Your task to perform on an android device: Open calendar and show me the fourth week of next month Image 0: 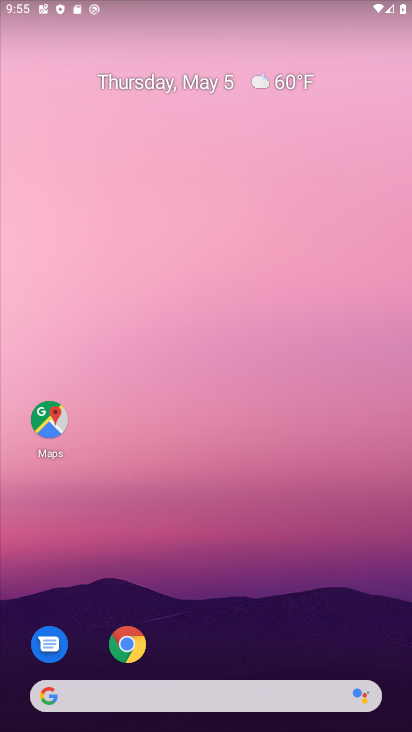
Step 0: drag from (211, 603) to (226, 131)
Your task to perform on an android device: Open calendar and show me the fourth week of next month Image 1: 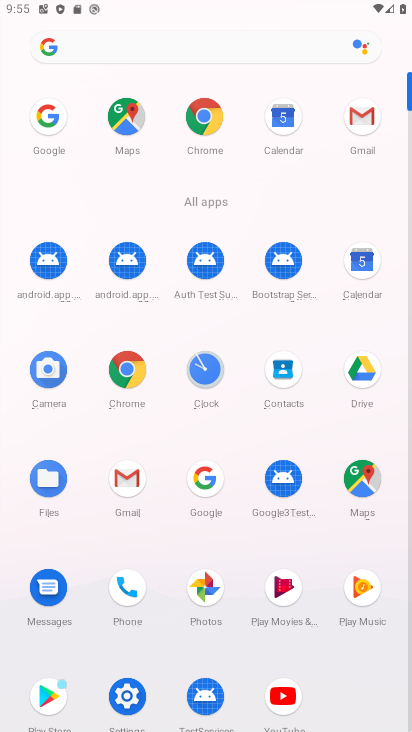
Step 1: click (276, 140)
Your task to perform on an android device: Open calendar and show me the fourth week of next month Image 2: 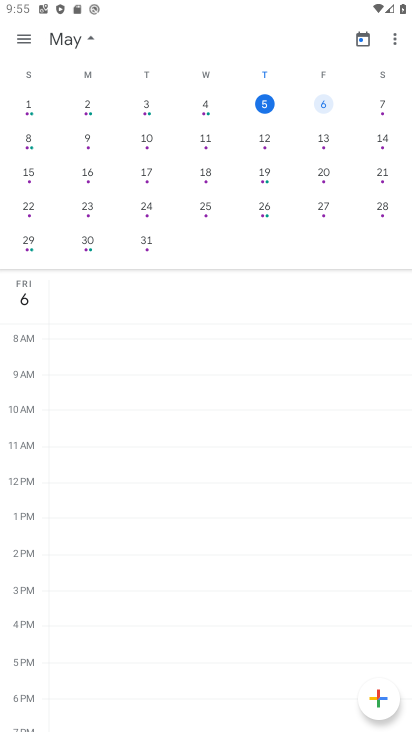
Step 2: click (26, 36)
Your task to perform on an android device: Open calendar and show me the fourth week of next month Image 3: 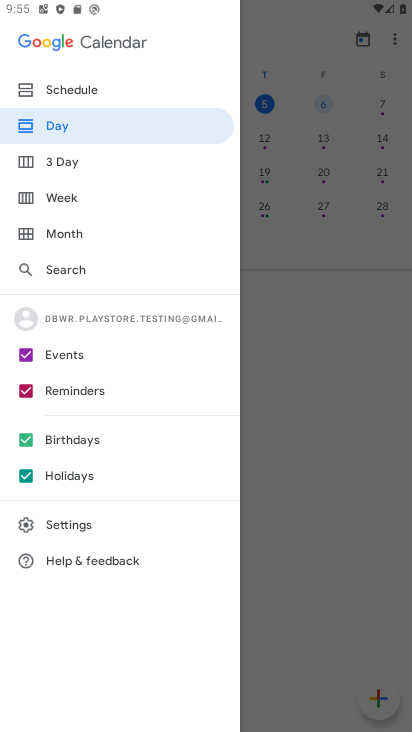
Step 3: click (308, 410)
Your task to perform on an android device: Open calendar and show me the fourth week of next month Image 4: 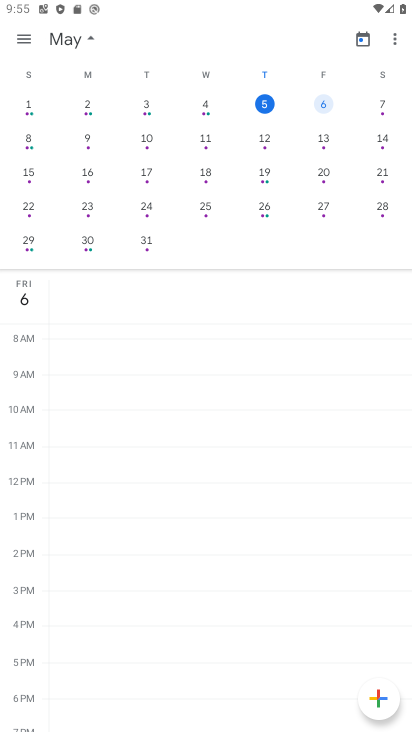
Step 4: drag from (278, 193) to (1, 200)
Your task to perform on an android device: Open calendar and show me the fourth week of next month Image 5: 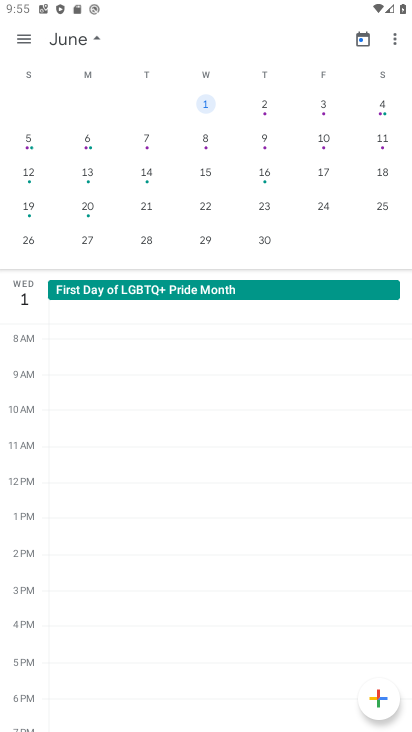
Step 5: click (25, 212)
Your task to perform on an android device: Open calendar and show me the fourth week of next month Image 6: 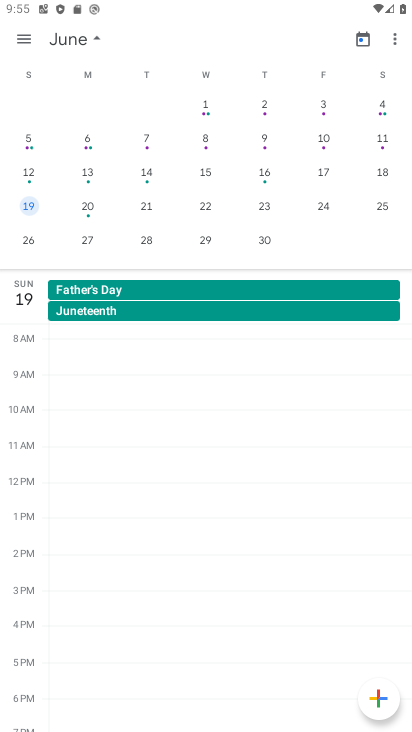
Step 6: click (89, 208)
Your task to perform on an android device: Open calendar and show me the fourth week of next month Image 7: 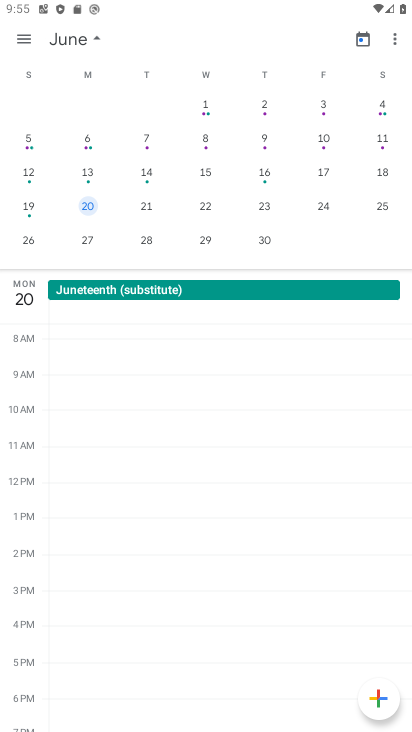
Step 7: click (152, 210)
Your task to perform on an android device: Open calendar and show me the fourth week of next month Image 8: 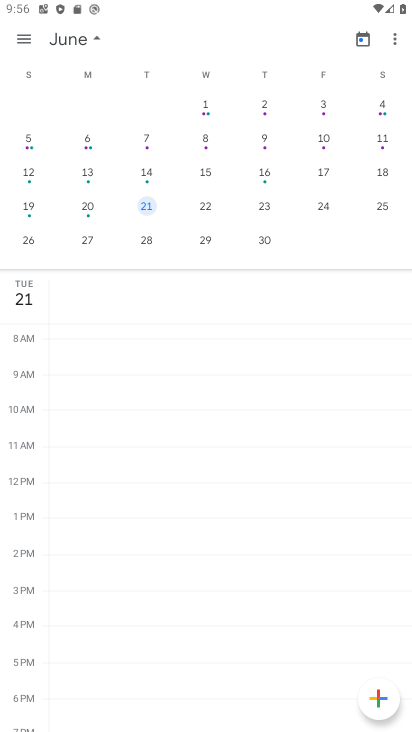
Step 8: click (195, 208)
Your task to perform on an android device: Open calendar and show me the fourth week of next month Image 9: 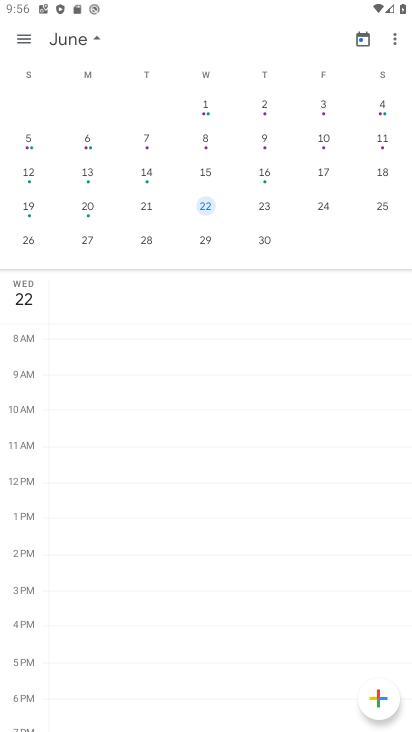
Step 9: click (266, 209)
Your task to perform on an android device: Open calendar and show me the fourth week of next month Image 10: 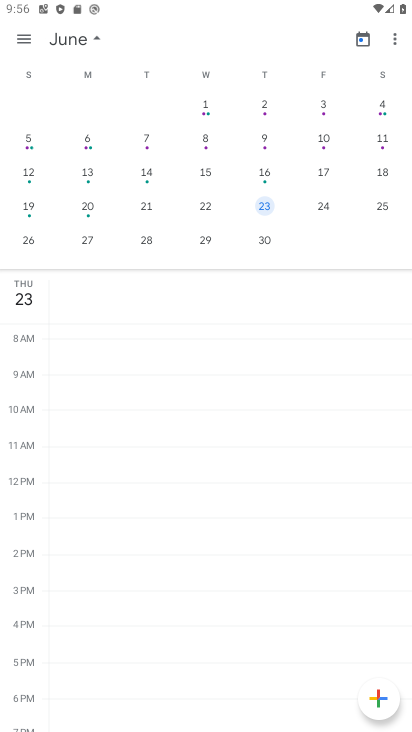
Step 10: click (321, 207)
Your task to perform on an android device: Open calendar and show me the fourth week of next month Image 11: 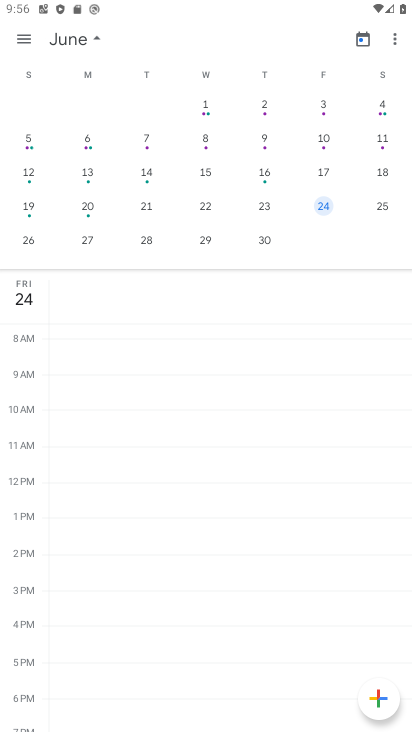
Step 11: click (384, 212)
Your task to perform on an android device: Open calendar and show me the fourth week of next month Image 12: 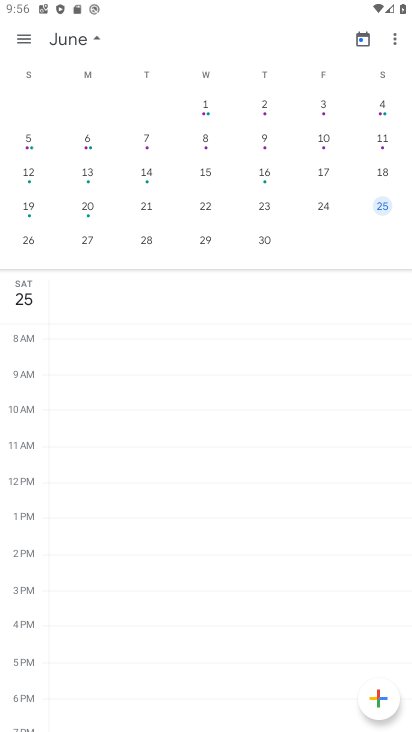
Step 12: task complete